Your task to perform on an android device: turn off data saver in the chrome app Image 0: 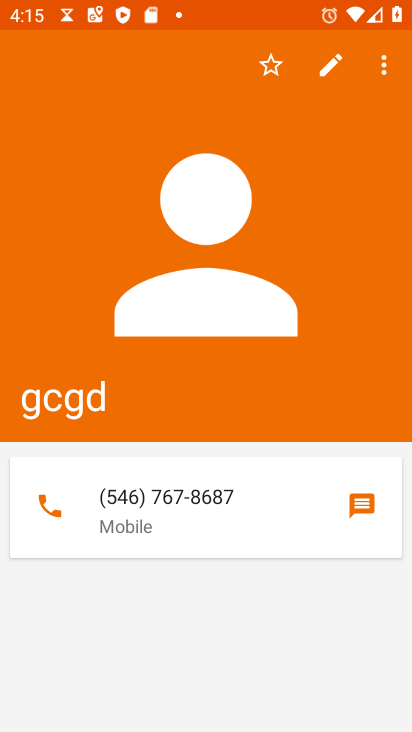
Step 0: press home button
Your task to perform on an android device: turn off data saver in the chrome app Image 1: 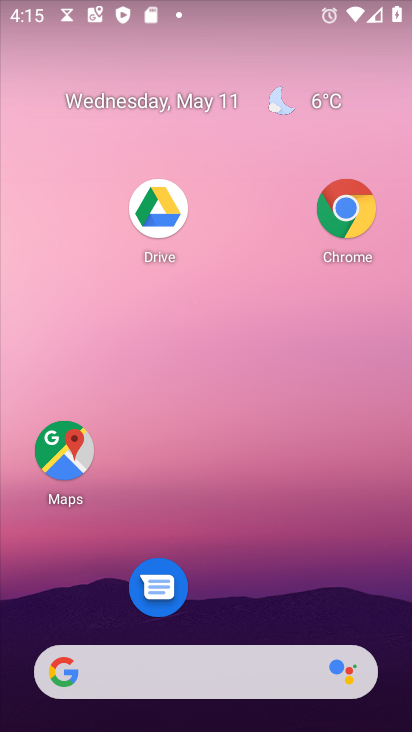
Step 1: drag from (261, 569) to (253, 140)
Your task to perform on an android device: turn off data saver in the chrome app Image 2: 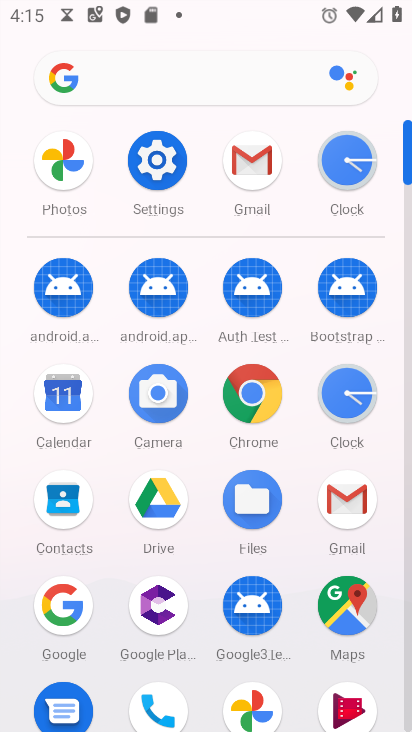
Step 2: click (265, 389)
Your task to perform on an android device: turn off data saver in the chrome app Image 3: 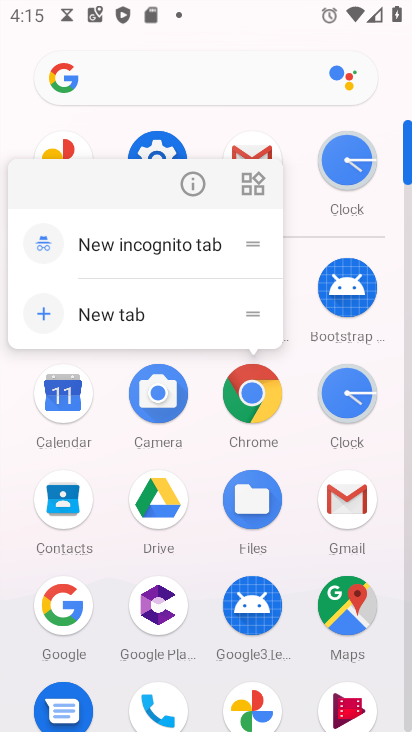
Step 3: click (274, 386)
Your task to perform on an android device: turn off data saver in the chrome app Image 4: 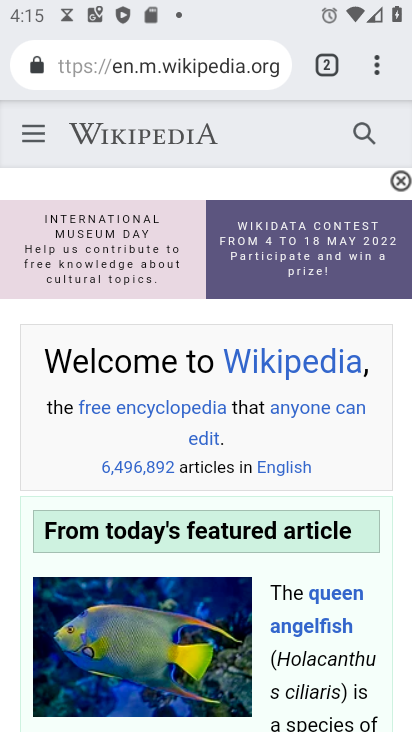
Step 4: click (381, 62)
Your task to perform on an android device: turn off data saver in the chrome app Image 5: 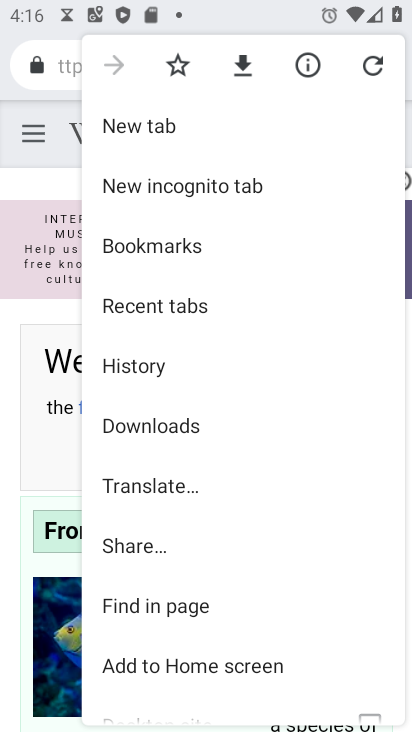
Step 5: drag from (295, 580) to (275, 314)
Your task to perform on an android device: turn off data saver in the chrome app Image 6: 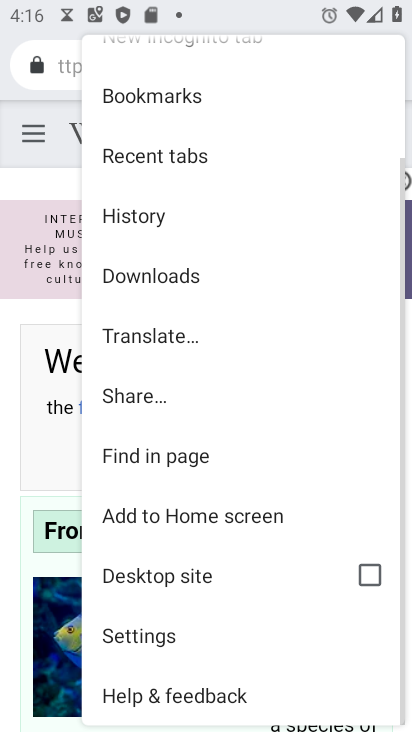
Step 6: click (141, 639)
Your task to perform on an android device: turn off data saver in the chrome app Image 7: 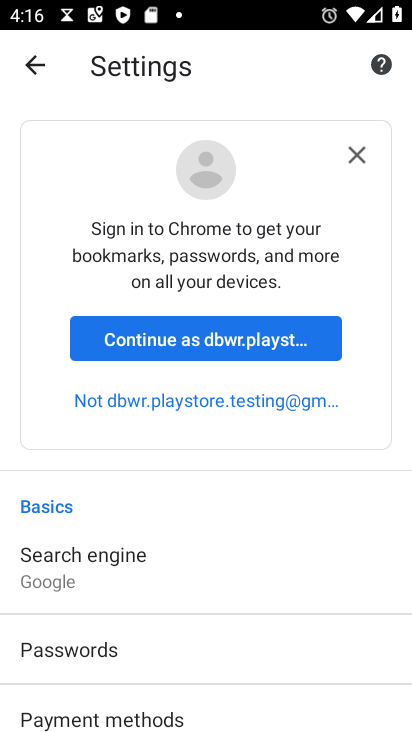
Step 7: drag from (217, 638) to (212, 416)
Your task to perform on an android device: turn off data saver in the chrome app Image 8: 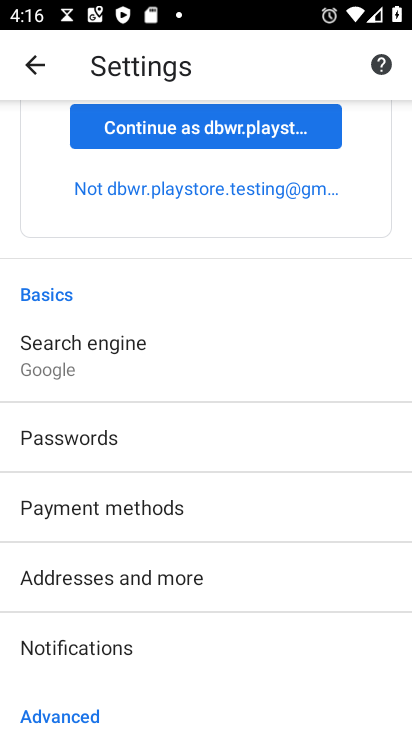
Step 8: drag from (302, 659) to (291, 429)
Your task to perform on an android device: turn off data saver in the chrome app Image 9: 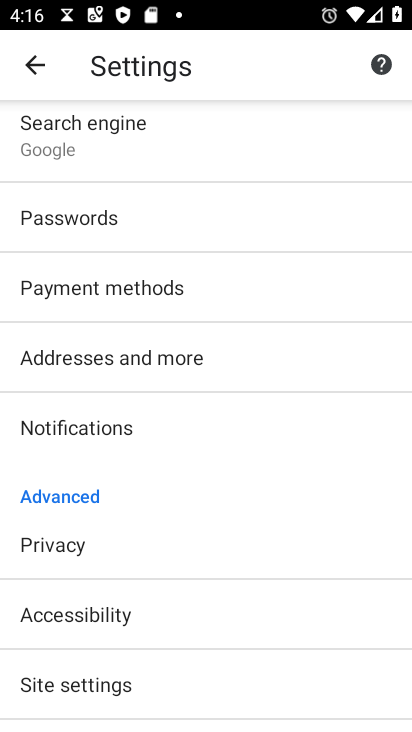
Step 9: drag from (235, 608) to (266, 449)
Your task to perform on an android device: turn off data saver in the chrome app Image 10: 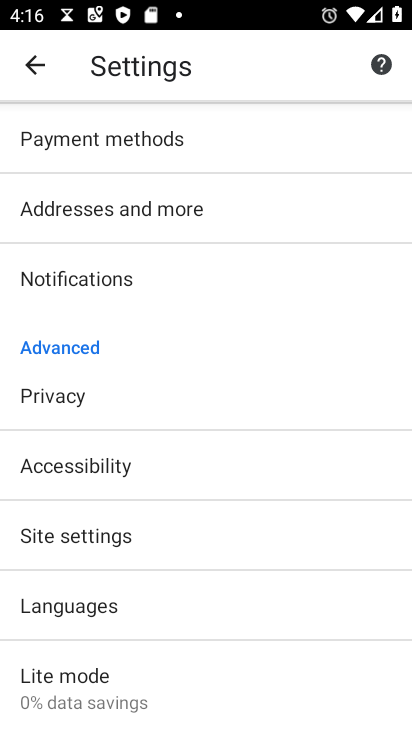
Step 10: click (143, 681)
Your task to perform on an android device: turn off data saver in the chrome app Image 11: 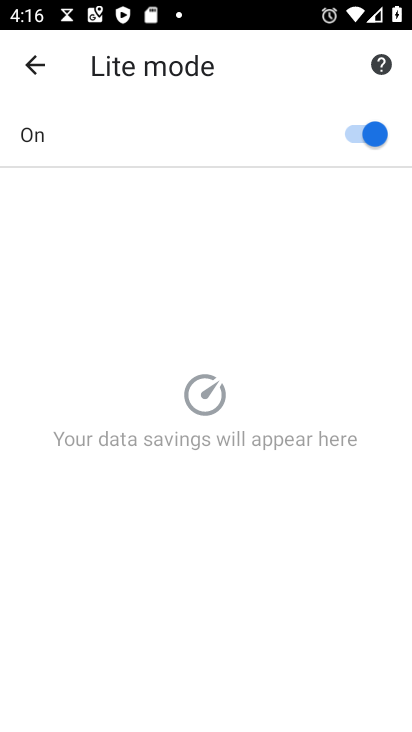
Step 11: click (356, 119)
Your task to perform on an android device: turn off data saver in the chrome app Image 12: 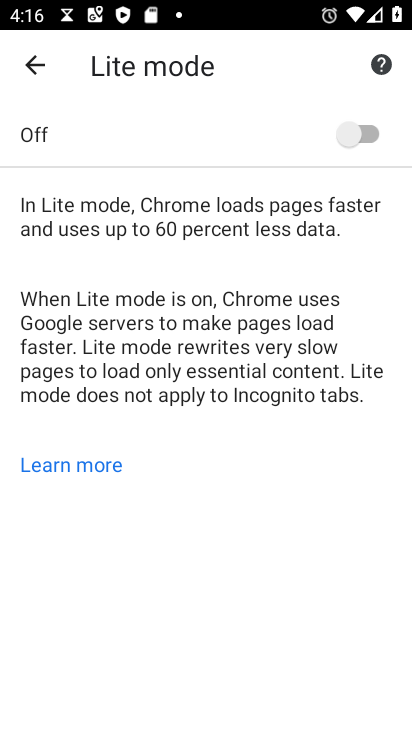
Step 12: task complete